Your task to perform on an android device: delete browsing data in the chrome app Image 0: 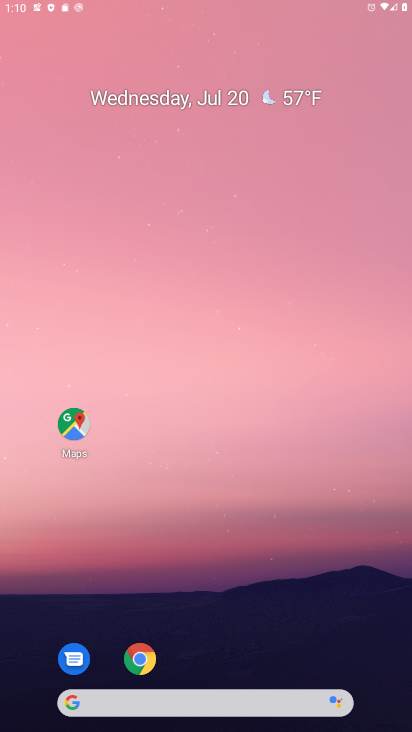
Step 0: press home button
Your task to perform on an android device: delete browsing data in the chrome app Image 1: 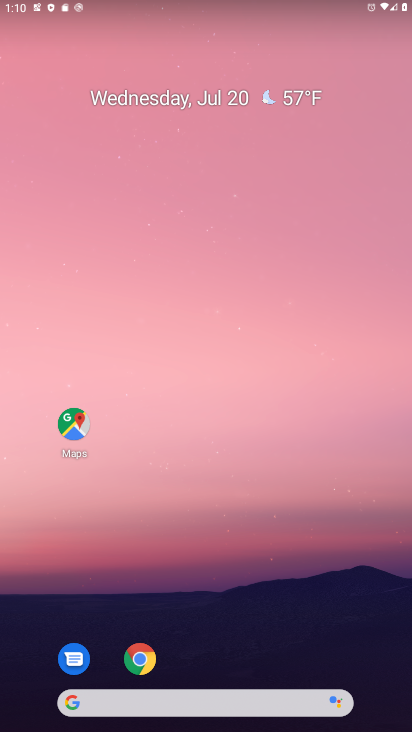
Step 1: click (137, 654)
Your task to perform on an android device: delete browsing data in the chrome app Image 2: 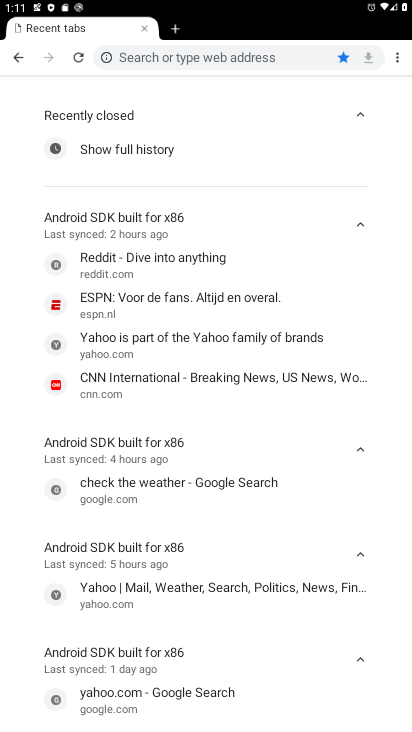
Step 2: click (395, 56)
Your task to perform on an android device: delete browsing data in the chrome app Image 3: 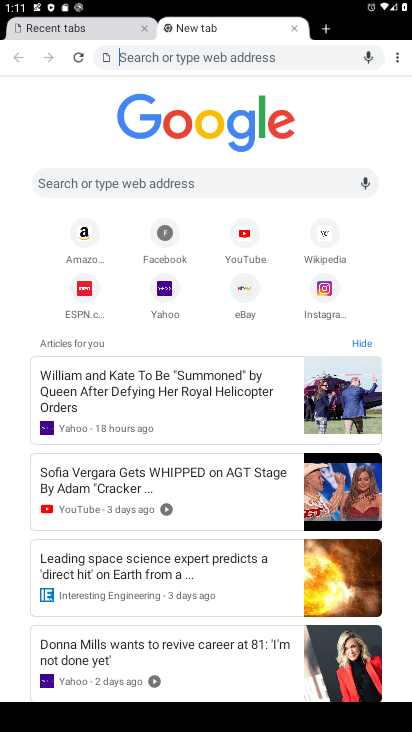
Step 3: click (395, 63)
Your task to perform on an android device: delete browsing data in the chrome app Image 4: 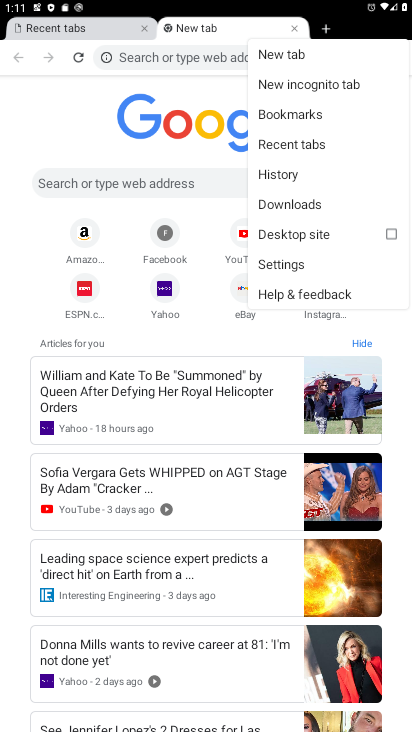
Step 4: click (298, 172)
Your task to perform on an android device: delete browsing data in the chrome app Image 5: 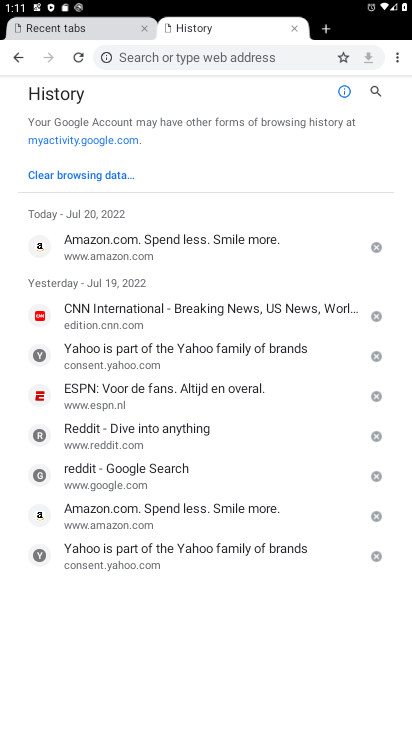
Step 5: click (73, 174)
Your task to perform on an android device: delete browsing data in the chrome app Image 6: 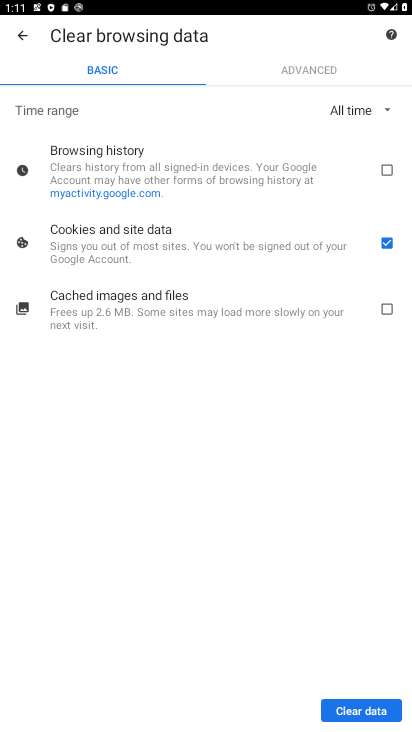
Step 6: click (382, 166)
Your task to perform on an android device: delete browsing data in the chrome app Image 7: 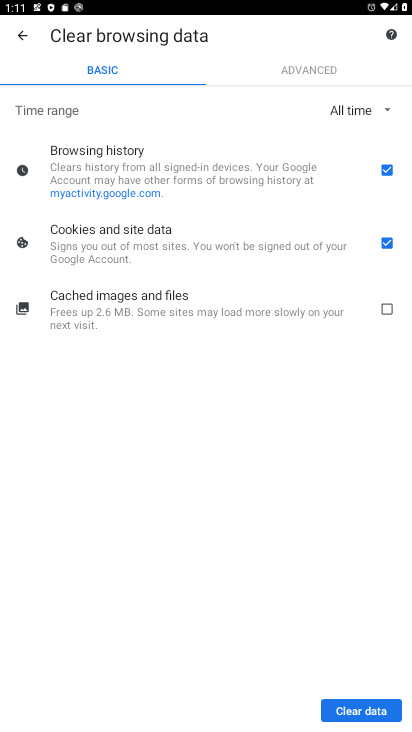
Step 7: click (383, 307)
Your task to perform on an android device: delete browsing data in the chrome app Image 8: 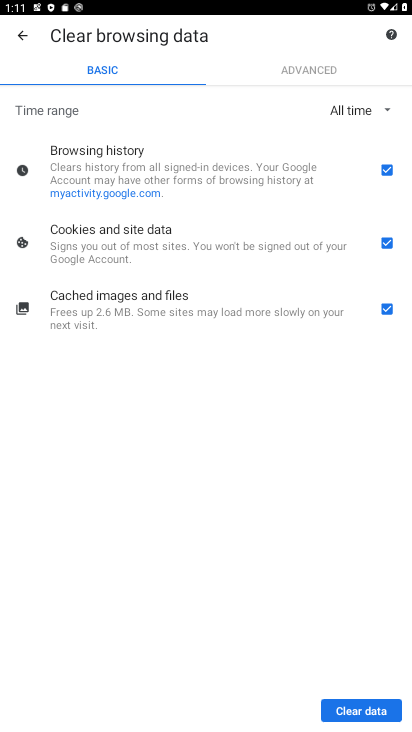
Step 8: click (363, 707)
Your task to perform on an android device: delete browsing data in the chrome app Image 9: 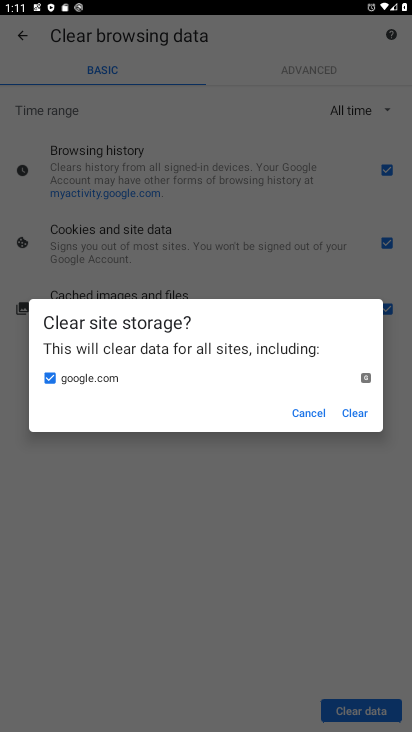
Step 9: click (352, 411)
Your task to perform on an android device: delete browsing data in the chrome app Image 10: 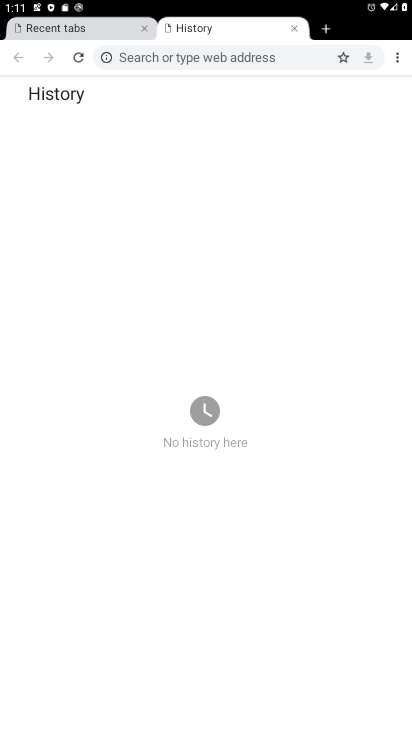
Step 10: task complete